Your task to perform on an android device: turn off picture-in-picture Image 0: 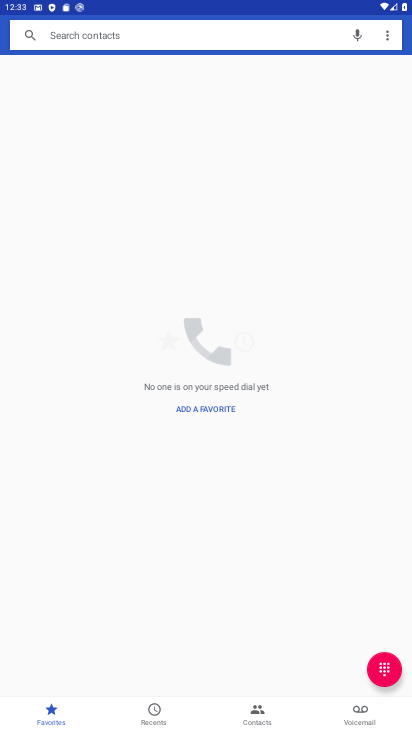
Step 0: press home button
Your task to perform on an android device: turn off picture-in-picture Image 1: 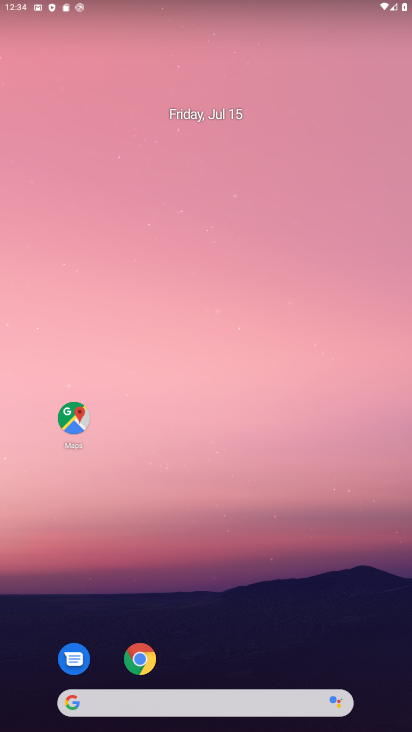
Step 1: drag from (237, 728) to (233, 210)
Your task to perform on an android device: turn off picture-in-picture Image 2: 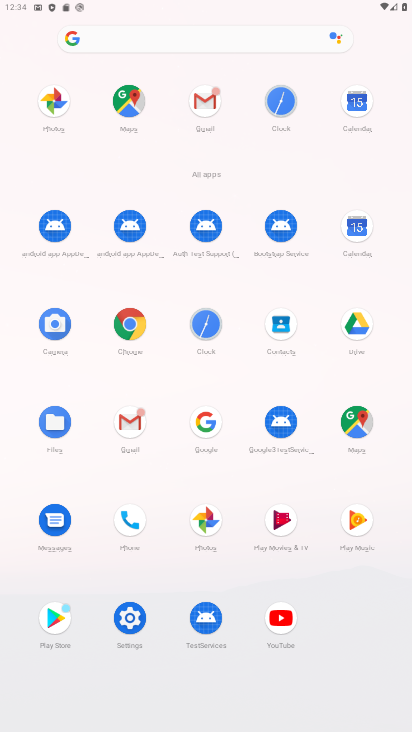
Step 2: click (129, 619)
Your task to perform on an android device: turn off picture-in-picture Image 3: 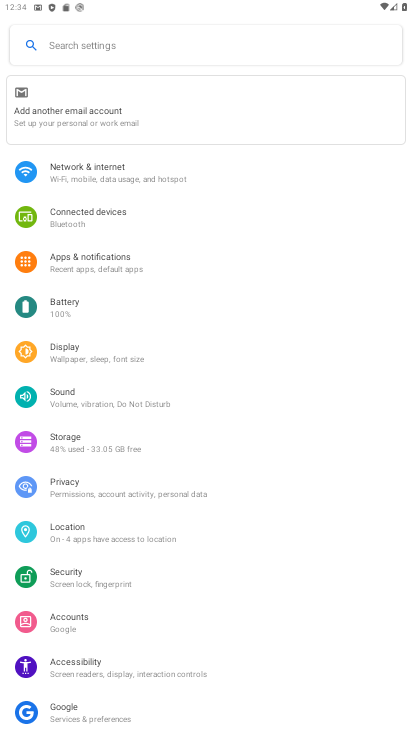
Step 3: click (95, 268)
Your task to perform on an android device: turn off picture-in-picture Image 4: 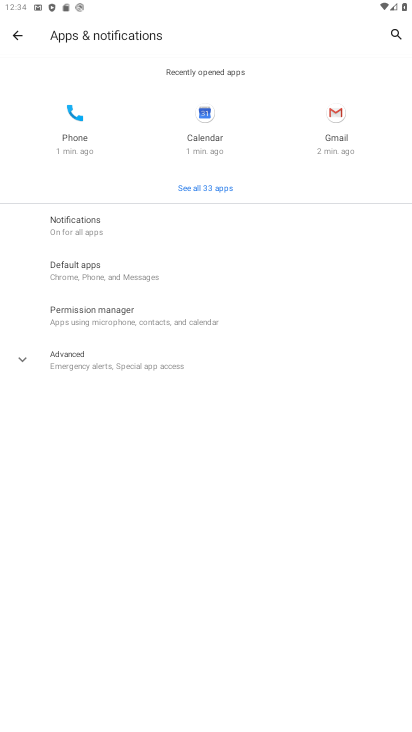
Step 4: click (73, 345)
Your task to perform on an android device: turn off picture-in-picture Image 5: 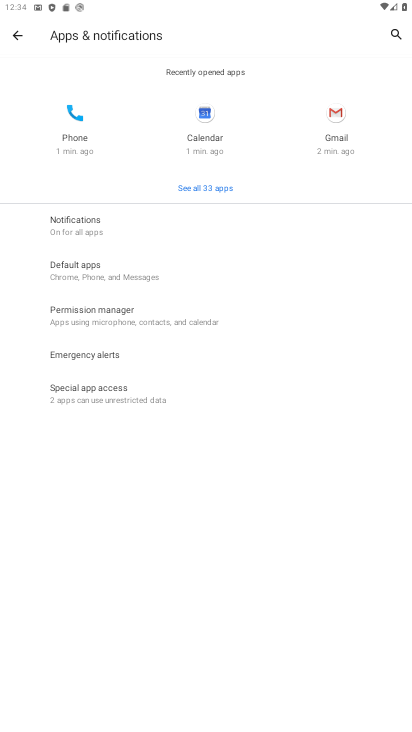
Step 5: click (80, 395)
Your task to perform on an android device: turn off picture-in-picture Image 6: 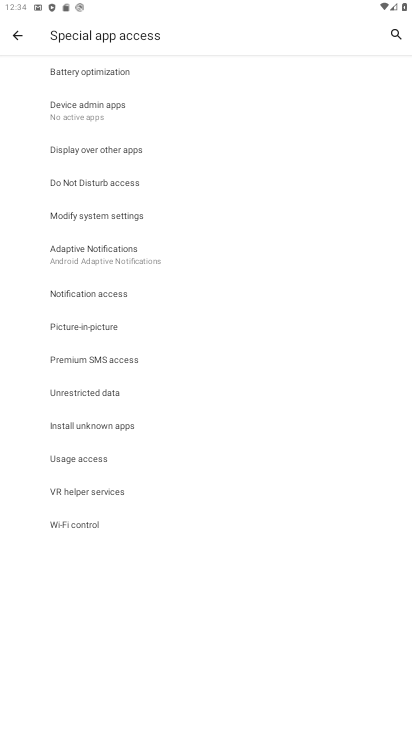
Step 6: click (74, 326)
Your task to perform on an android device: turn off picture-in-picture Image 7: 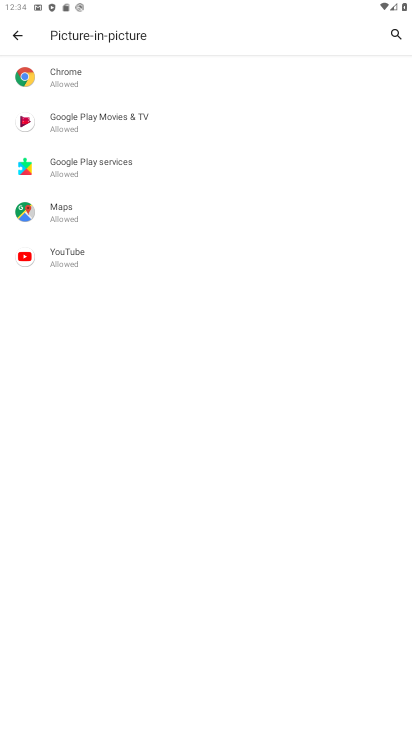
Step 7: click (195, 254)
Your task to perform on an android device: turn off picture-in-picture Image 8: 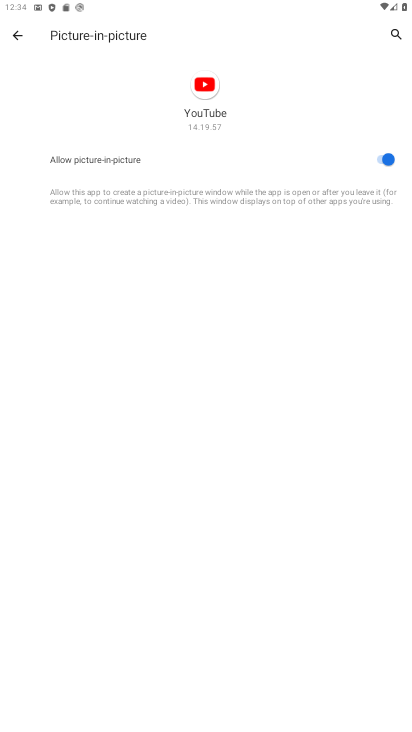
Step 8: click (381, 157)
Your task to perform on an android device: turn off picture-in-picture Image 9: 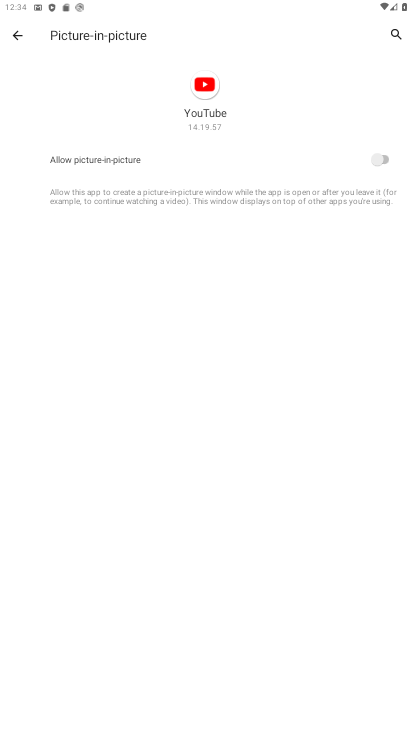
Step 9: task complete